Your task to perform on an android device: turn off improve location accuracy Image 0: 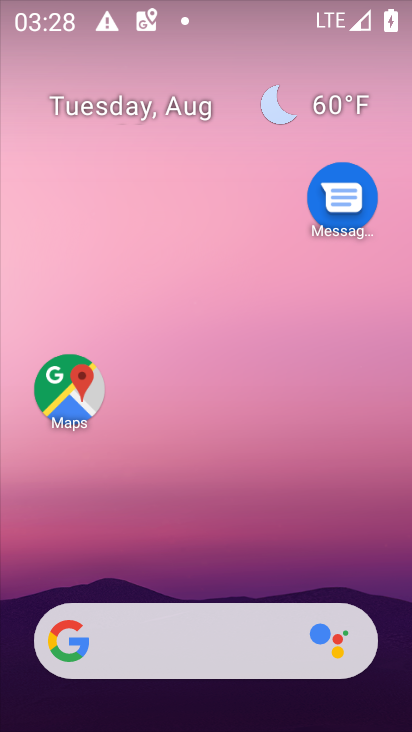
Step 0: drag from (241, 590) to (247, 83)
Your task to perform on an android device: turn off improve location accuracy Image 1: 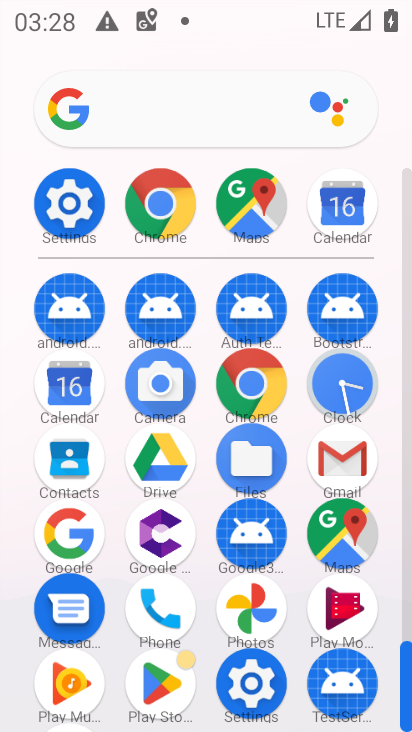
Step 1: click (259, 678)
Your task to perform on an android device: turn off improve location accuracy Image 2: 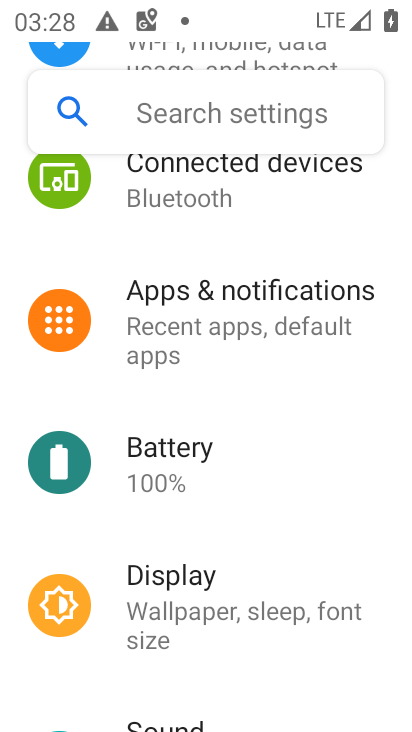
Step 2: task complete